Your task to perform on an android device: When is my next appointment? Image 0: 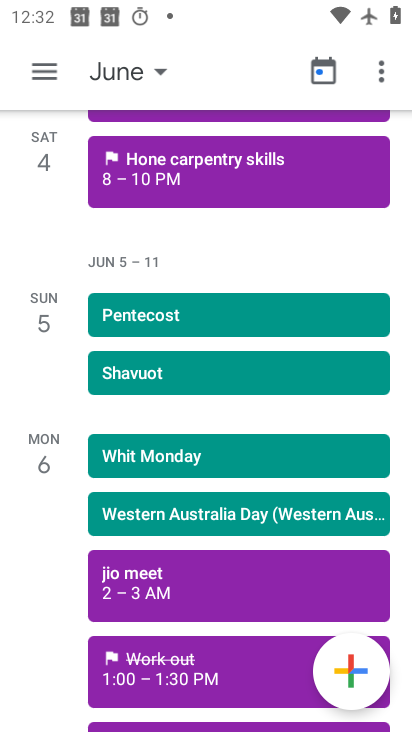
Step 0: press home button
Your task to perform on an android device: When is my next appointment? Image 1: 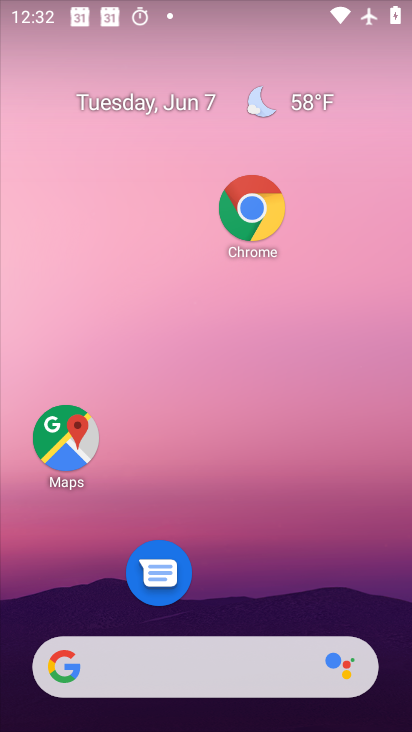
Step 1: drag from (212, 577) to (193, 181)
Your task to perform on an android device: When is my next appointment? Image 2: 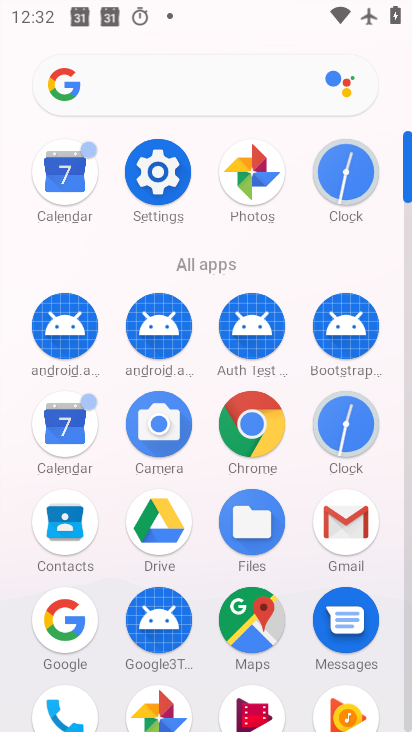
Step 2: click (47, 431)
Your task to perform on an android device: When is my next appointment? Image 3: 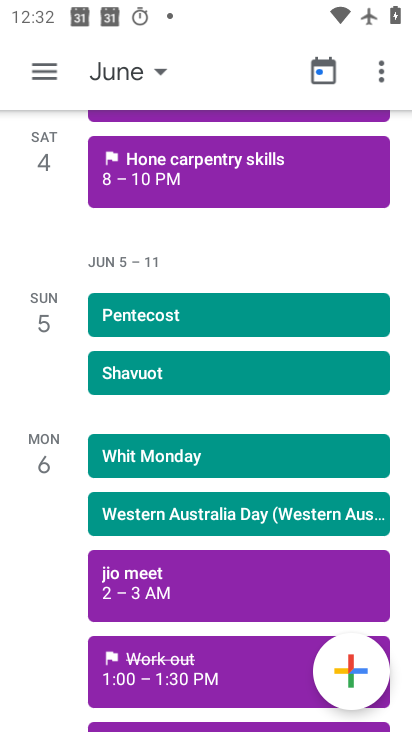
Step 3: task complete